Your task to perform on an android device: check the backup settings in the google photos Image 0: 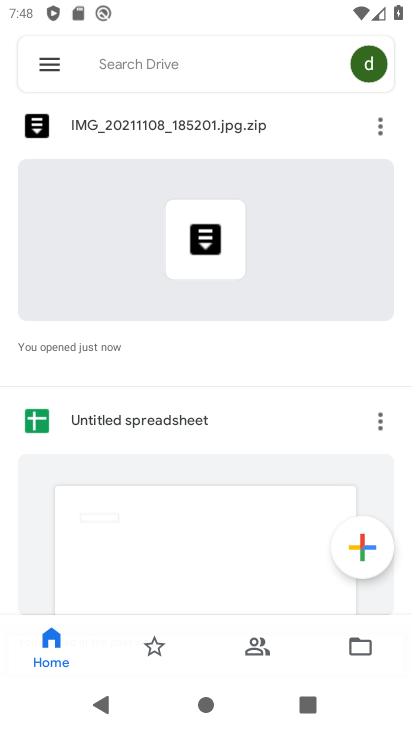
Step 0: press home button
Your task to perform on an android device: check the backup settings in the google photos Image 1: 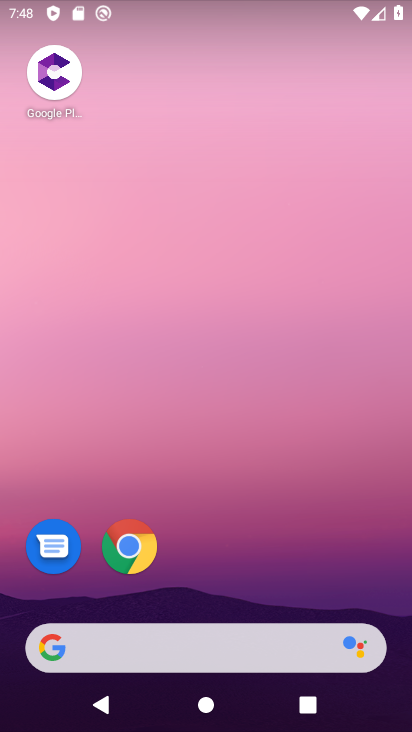
Step 1: drag from (255, 680) to (214, 234)
Your task to perform on an android device: check the backup settings in the google photos Image 2: 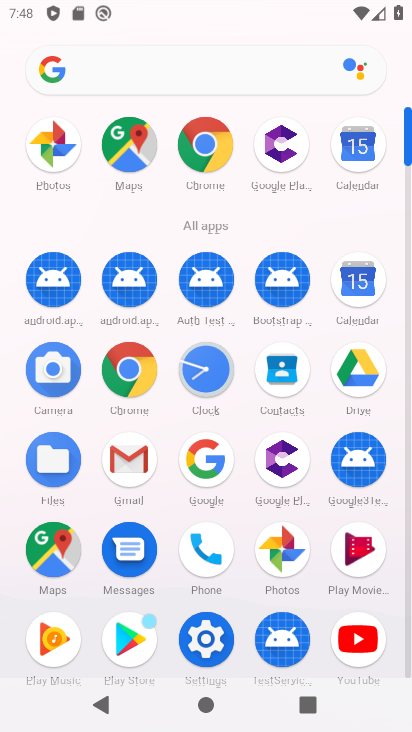
Step 2: drag from (213, 578) to (197, 277)
Your task to perform on an android device: check the backup settings in the google photos Image 3: 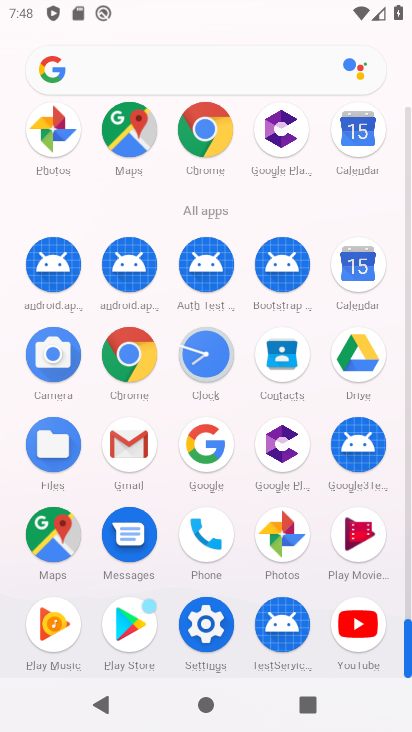
Step 3: click (275, 518)
Your task to perform on an android device: check the backup settings in the google photos Image 4: 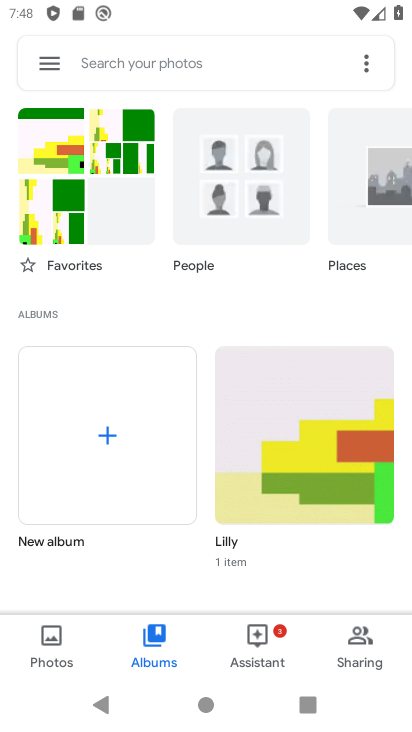
Step 4: click (41, 66)
Your task to perform on an android device: check the backup settings in the google photos Image 5: 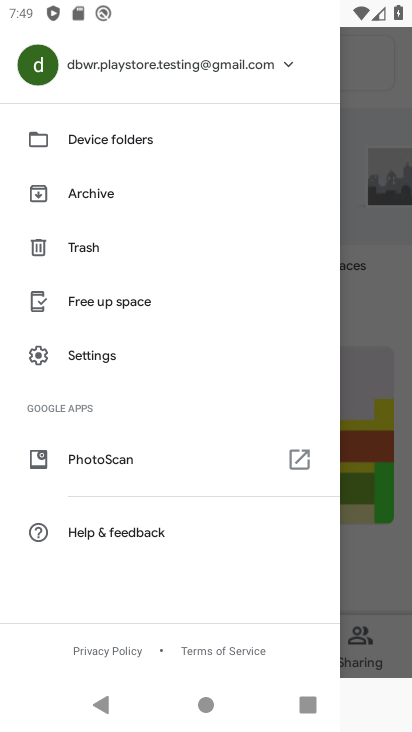
Step 5: click (113, 354)
Your task to perform on an android device: check the backup settings in the google photos Image 6: 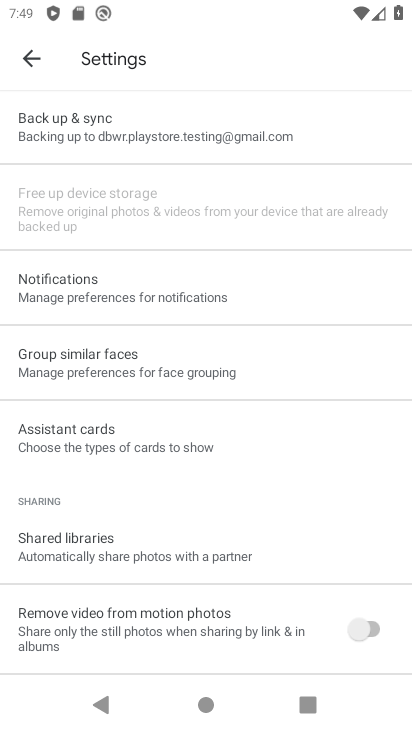
Step 6: click (147, 120)
Your task to perform on an android device: check the backup settings in the google photos Image 7: 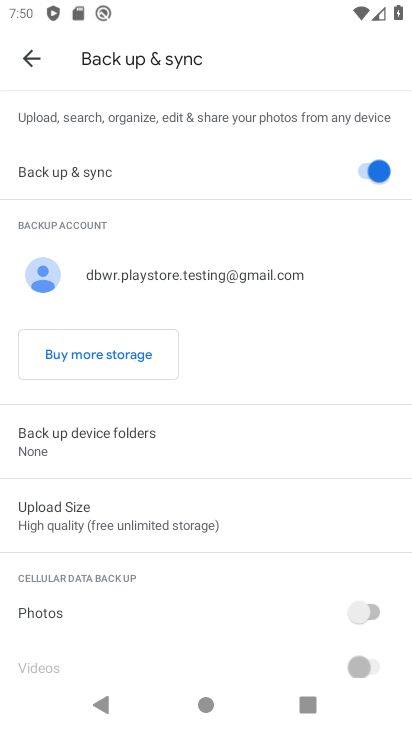
Step 7: task complete